Your task to perform on an android device: turn vacation reply on in the gmail app Image 0: 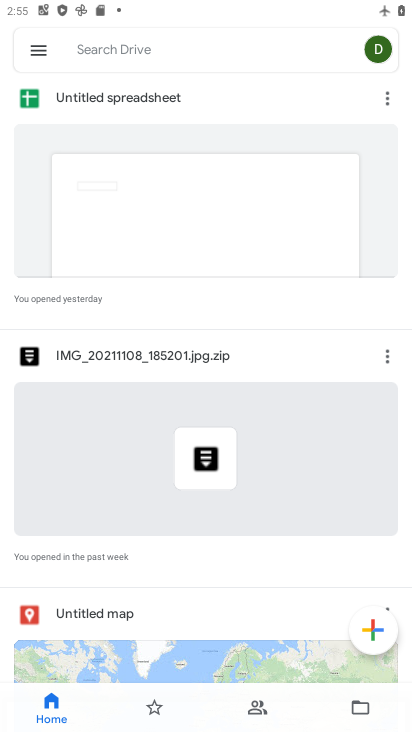
Step 0: press home button
Your task to perform on an android device: turn vacation reply on in the gmail app Image 1: 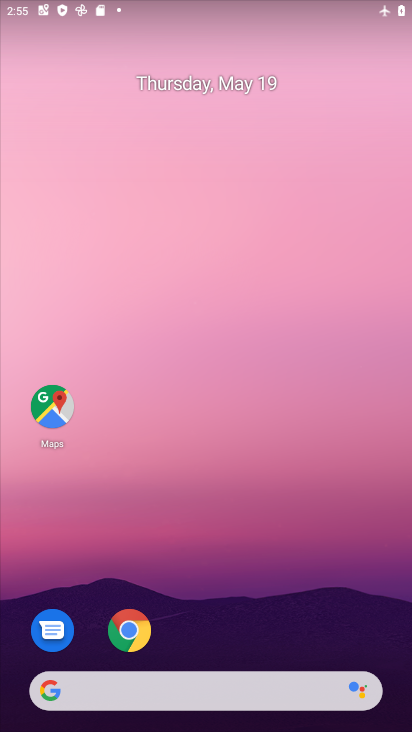
Step 1: drag from (395, 633) to (297, 101)
Your task to perform on an android device: turn vacation reply on in the gmail app Image 2: 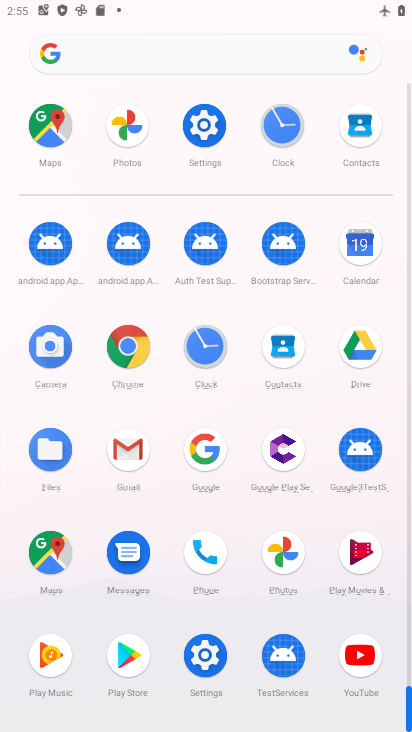
Step 2: click (126, 447)
Your task to perform on an android device: turn vacation reply on in the gmail app Image 3: 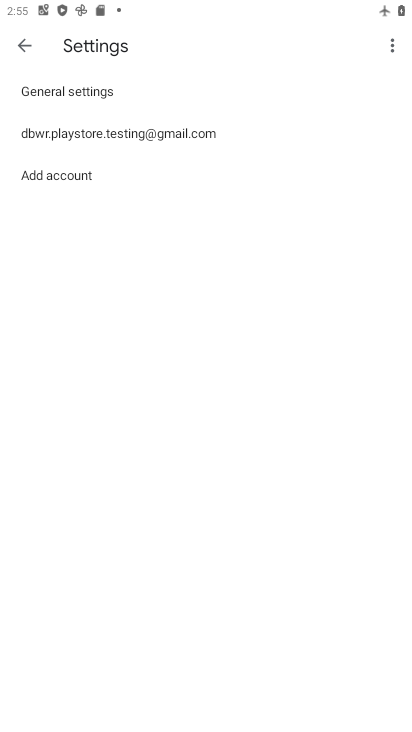
Step 3: click (104, 130)
Your task to perform on an android device: turn vacation reply on in the gmail app Image 4: 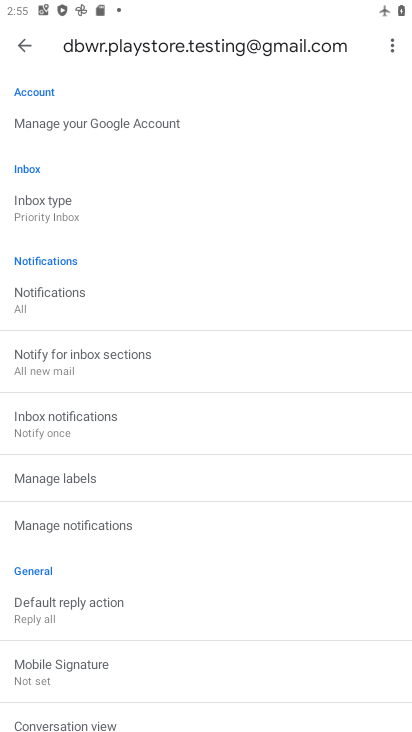
Step 4: drag from (200, 584) to (254, 181)
Your task to perform on an android device: turn vacation reply on in the gmail app Image 5: 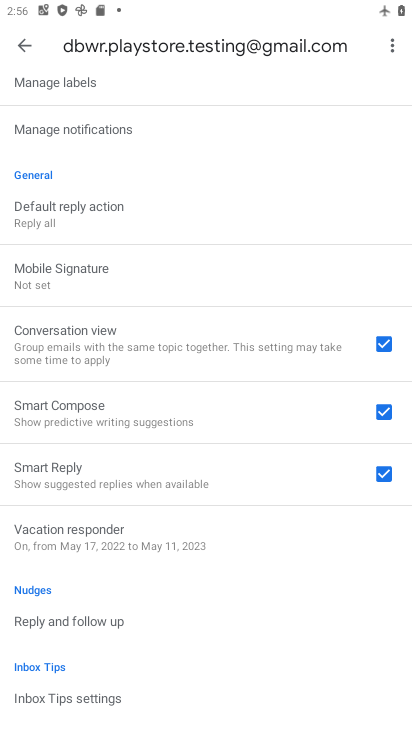
Step 5: click (111, 531)
Your task to perform on an android device: turn vacation reply on in the gmail app Image 6: 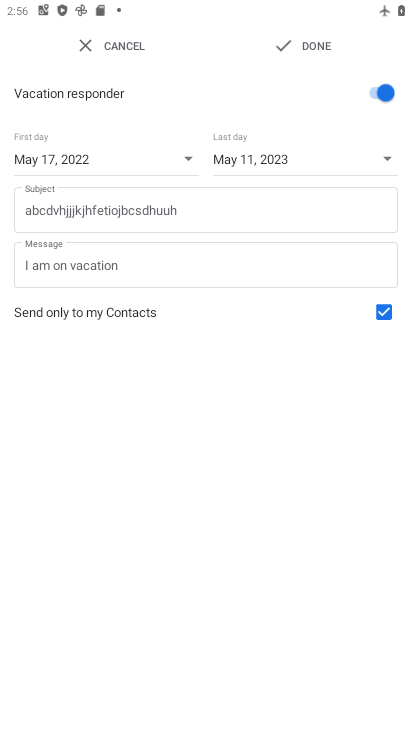
Step 6: task complete